Your task to perform on an android device: turn off wifi Image 0: 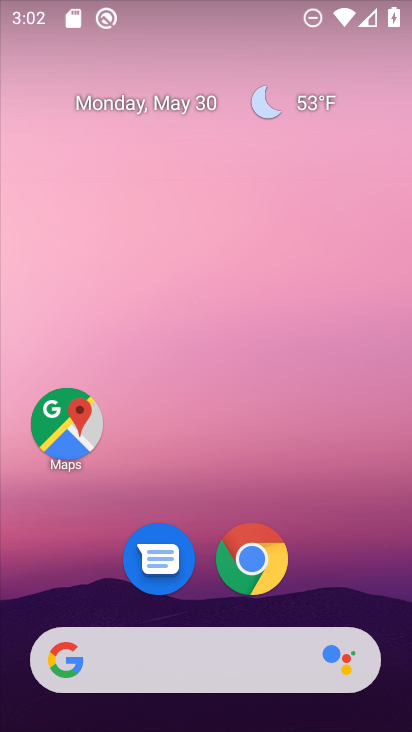
Step 0: drag from (84, 591) to (154, 217)
Your task to perform on an android device: turn off wifi Image 1: 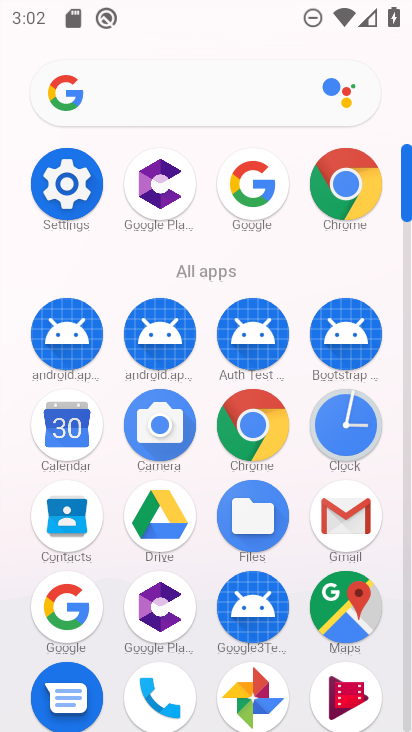
Step 1: drag from (132, 565) to (172, 349)
Your task to perform on an android device: turn off wifi Image 2: 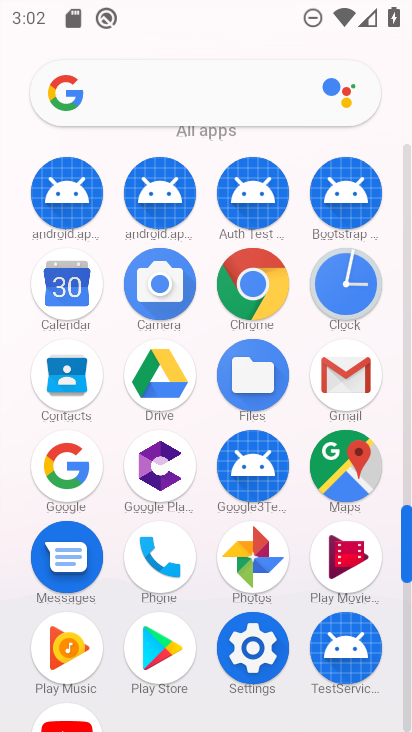
Step 2: click (252, 662)
Your task to perform on an android device: turn off wifi Image 3: 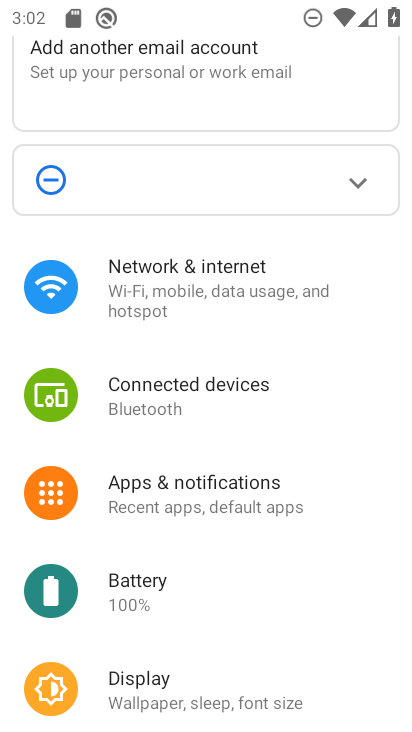
Step 3: click (218, 280)
Your task to perform on an android device: turn off wifi Image 4: 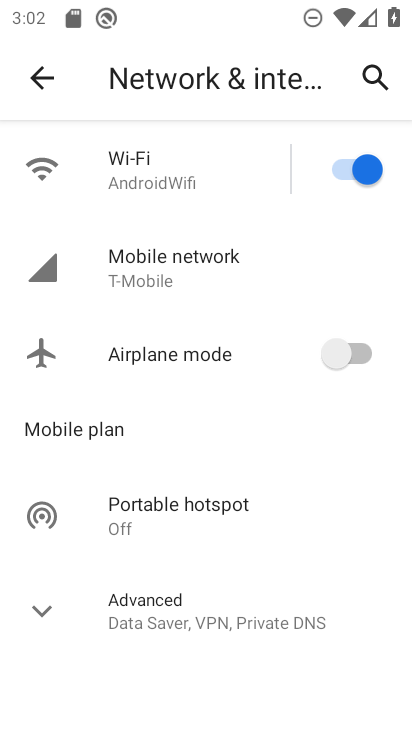
Step 4: click (352, 175)
Your task to perform on an android device: turn off wifi Image 5: 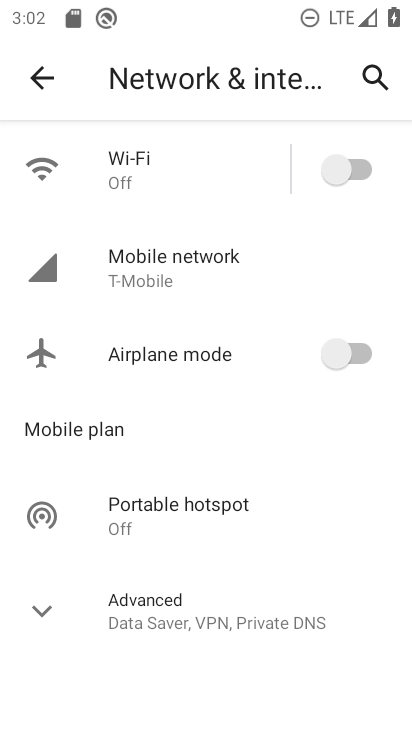
Step 5: task complete